Your task to perform on an android device: turn on sleep mode Image 0: 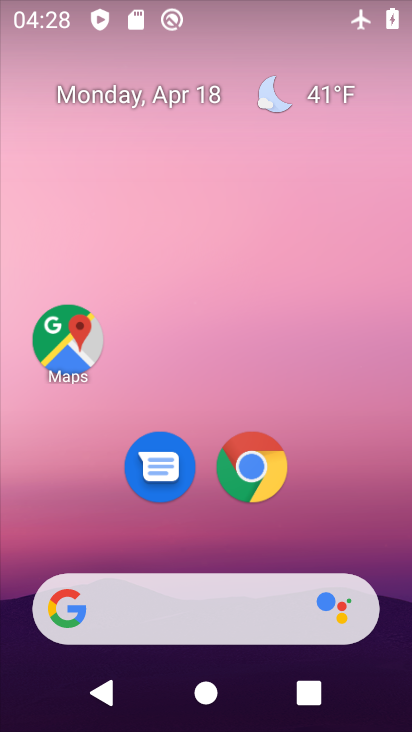
Step 0: drag from (202, 558) to (202, 187)
Your task to perform on an android device: turn on sleep mode Image 1: 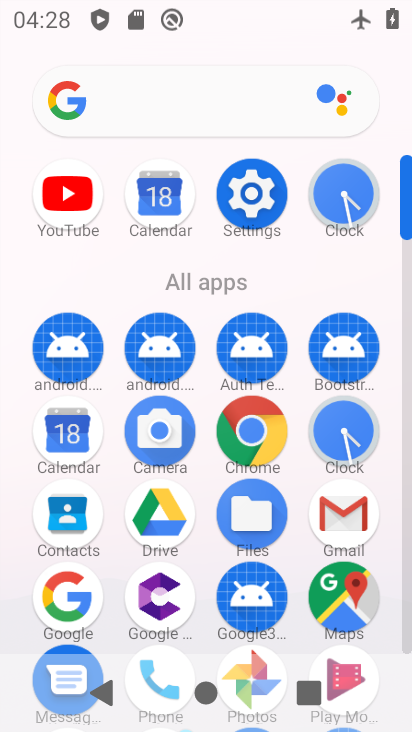
Step 1: click (269, 175)
Your task to perform on an android device: turn on sleep mode Image 2: 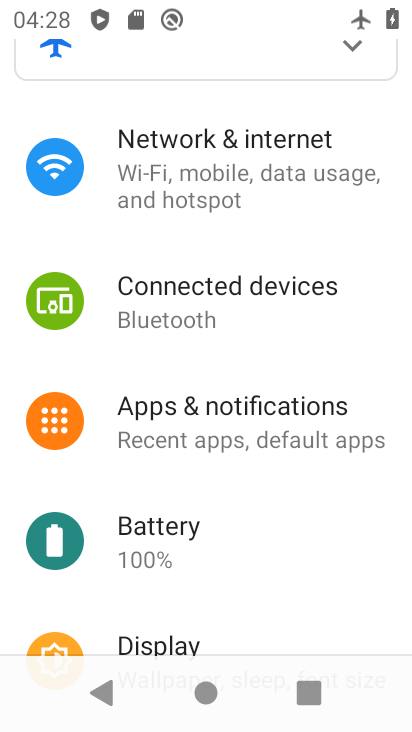
Step 2: drag from (224, 512) to (227, 240)
Your task to perform on an android device: turn on sleep mode Image 3: 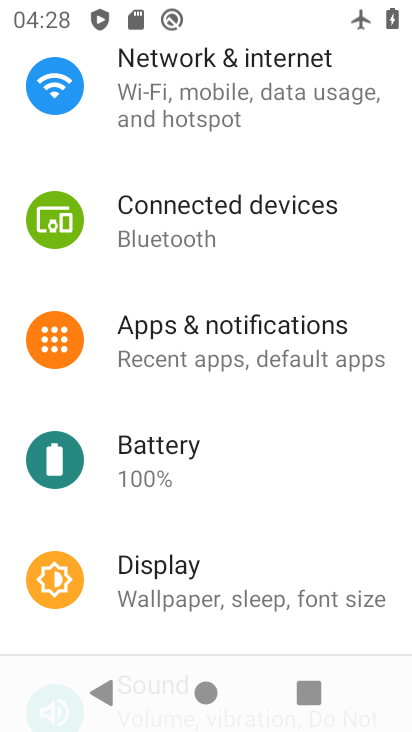
Step 3: click (212, 561)
Your task to perform on an android device: turn on sleep mode Image 4: 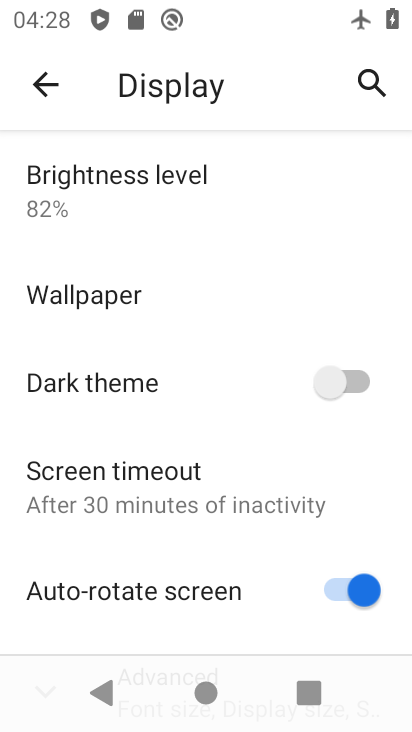
Step 4: click (147, 466)
Your task to perform on an android device: turn on sleep mode Image 5: 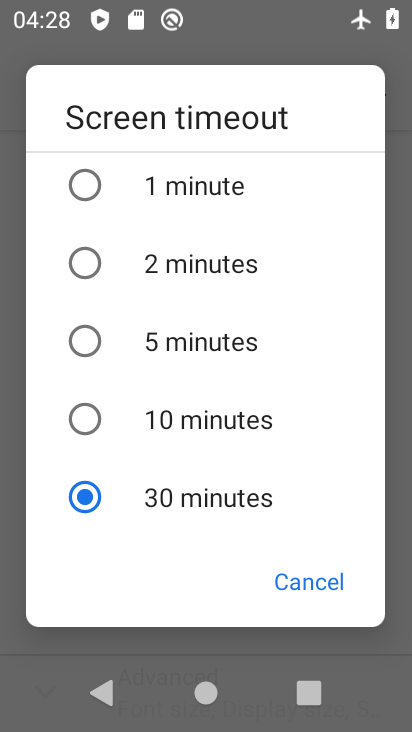
Step 5: click (149, 354)
Your task to perform on an android device: turn on sleep mode Image 6: 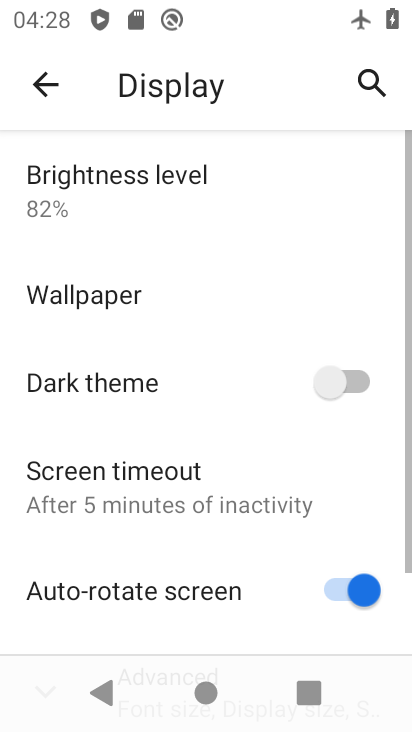
Step 6: task complete